Your task to perform on an android device: Do I have any events this weekend? Image 0: 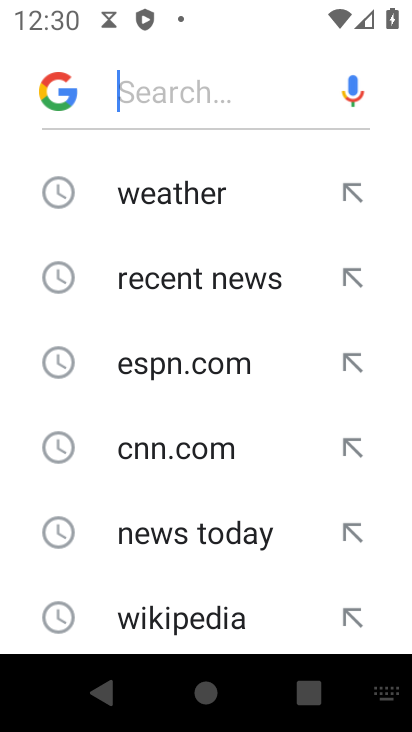
Step 0: press home button
Your task to perform on an android device: Do I have any events this weekend? Image 1: 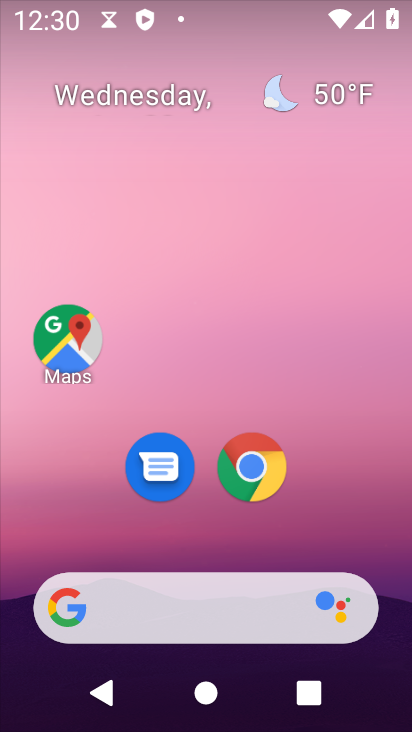
Step 1: drag from (206, 389) to (235, 24)
Your task to perform on an android device: Do I have any events this weekend? Image 2: 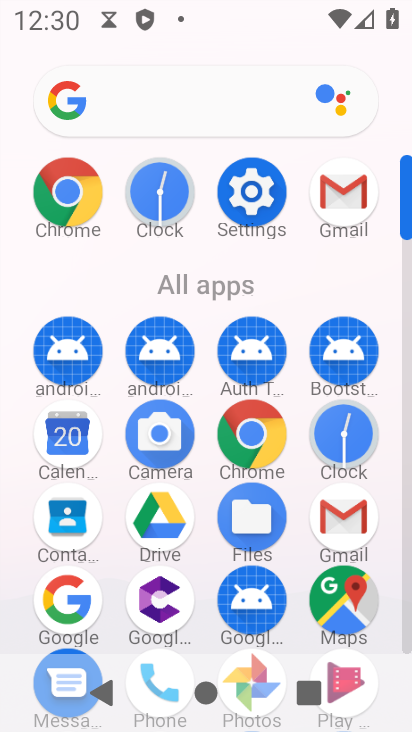
Step 2: click (87, 437)
Your task to perform on an android device: Do I have any events this weekend? Image 3: 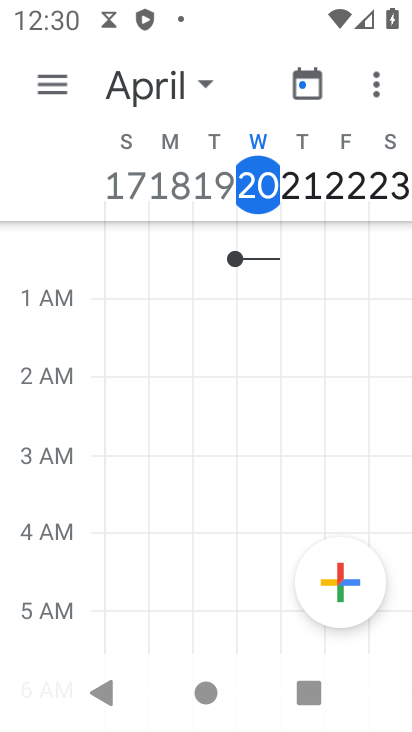
Step 3: click (45, 79)
Your task to perform on an android device: Do I have any events this weekend? Image 4: 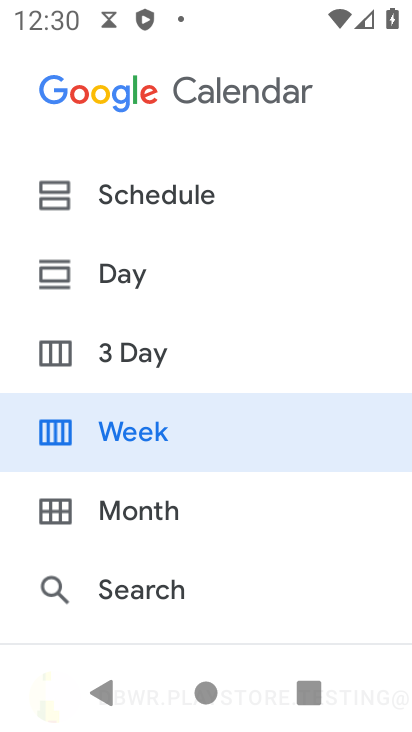
Step 4: drag from (210, 559) to (237, 158)
Your task to perform on an android device: Do I have any events this weekend? Image 5: 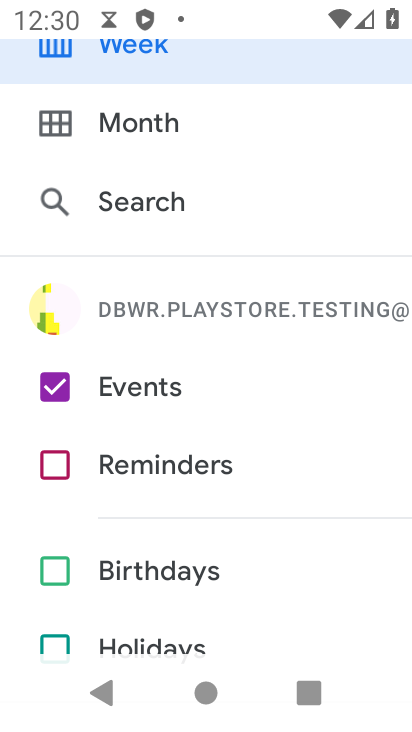
Step 5: click (106, 681)
Your task to perform on an android device: Do I have any events this weekend? Image 6: 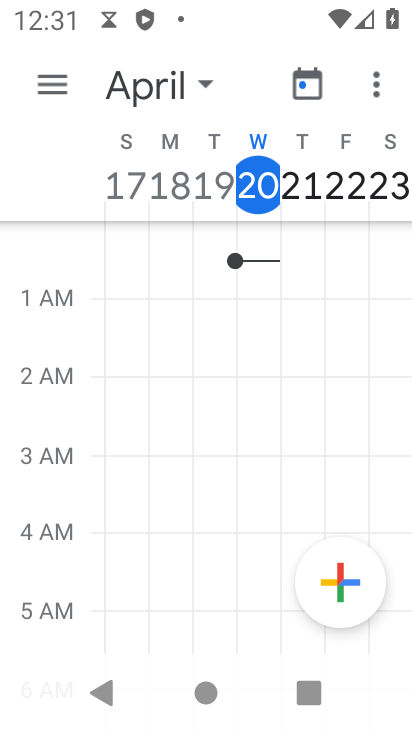
Step 6: task complete